Your task to perform on an android device: Go to calendar. Show me events next week Image 0: 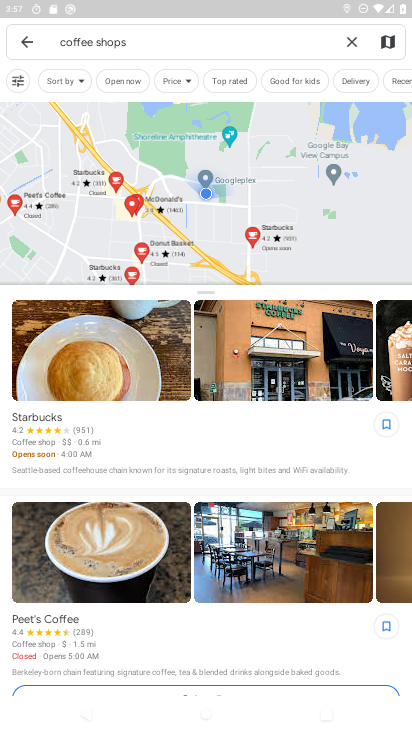
Step 0: press home button
Your task to perform on an android device: Go to calendar. Show me events next week Image 1: 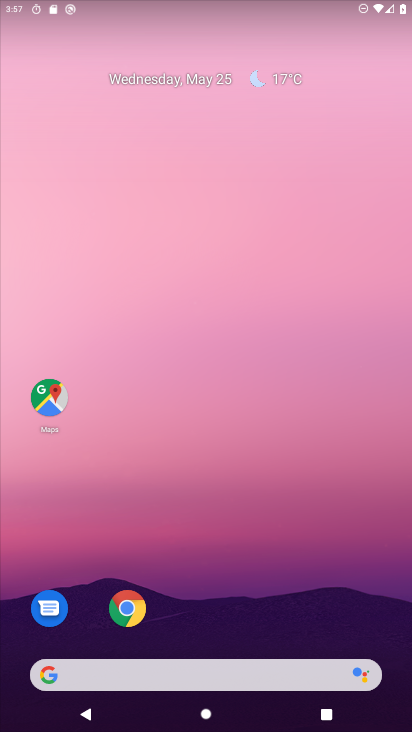
Step 1: drag from (201, 585) to (198, 62)
Your task to perform on an android device: Go to calendar. Show me events next week Image 2: 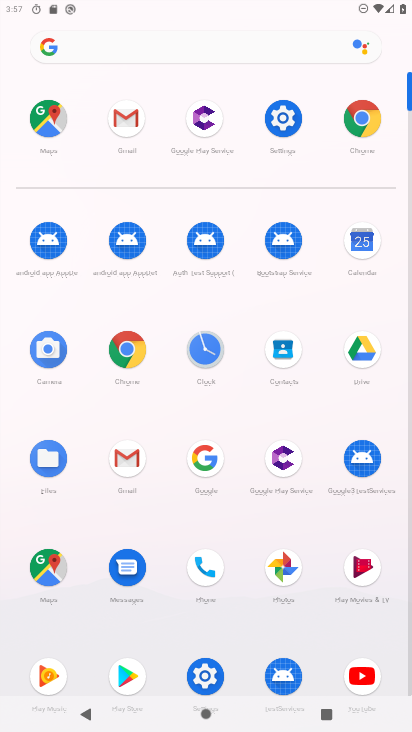
Step 2: click (358, 245)
Your task to perform on an android device: Go to calendar. Show me events next week Image 3: 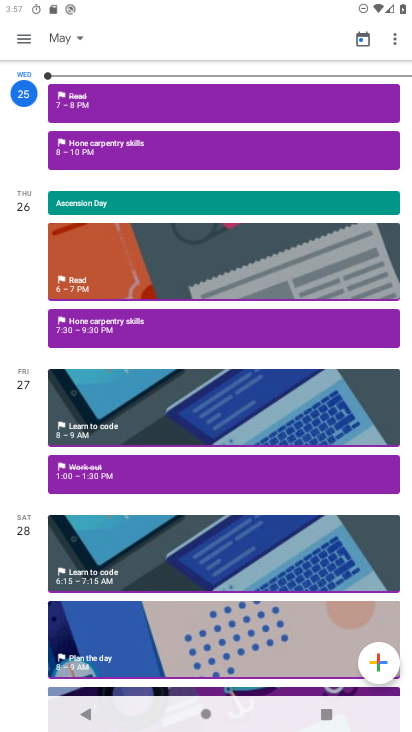
Step 3: click (23, 34)
Your task to perform on an android device: Go to calendar. Show me events next week Image 4: 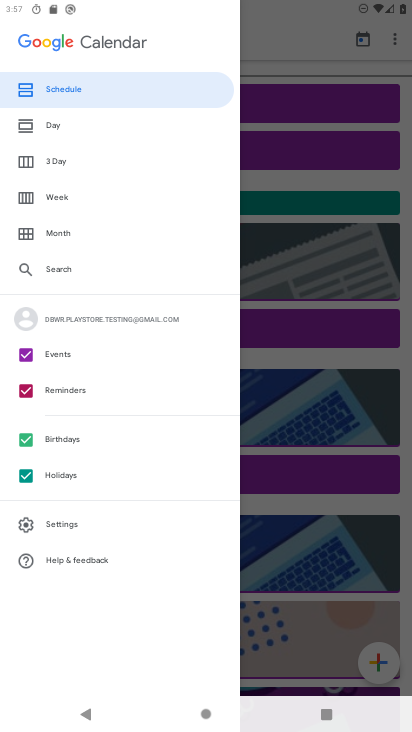
Step 4: click (291, 64)
Your task to perform on an android device: Go to calendar. Show me events next week Image 5: 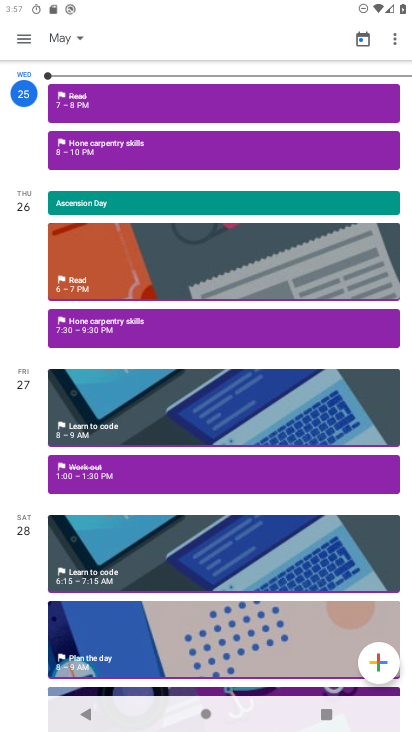
Step 5: click (52, 40)
Your task to perform on an android device: Go to calendar. Show me events next week Image 6: 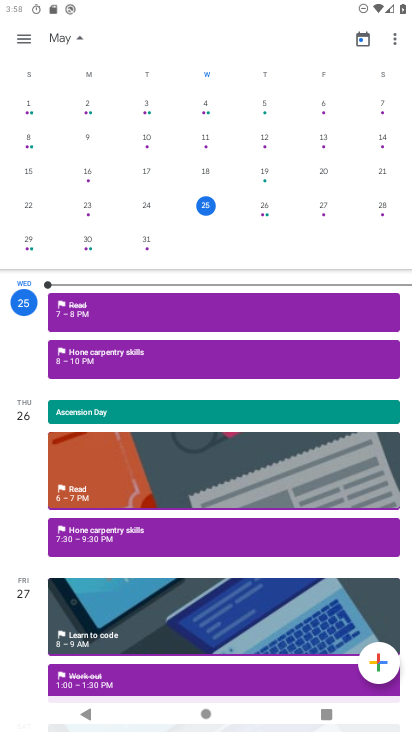
Step 6: click (142, 246)
Your task to perform on an android device: Go to calendar. Show me events next week Image 7: 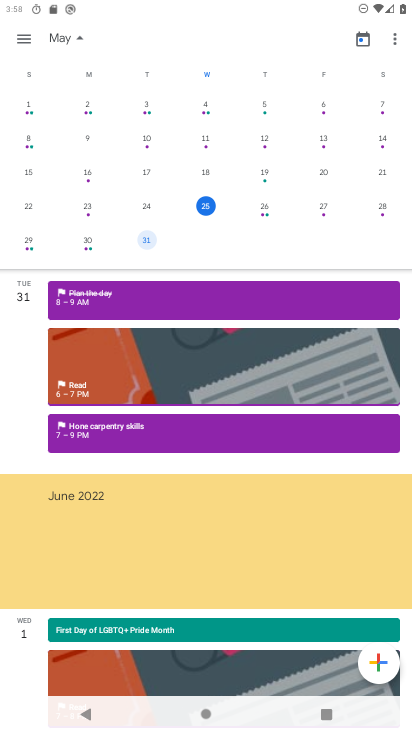
Step 7: click (23, 43)
Your task to perform on an android device: Go to calendar. Show me events next week Image 8: 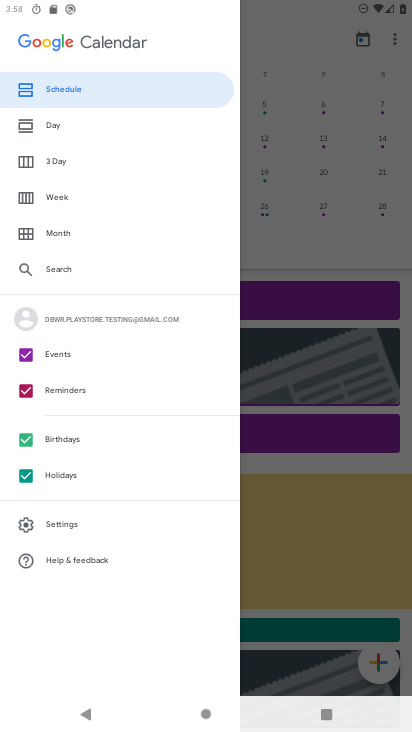
Step 8: click (59, 191)
Your task to perform on an android device: Go to calendar. Show me events next week Image 9: 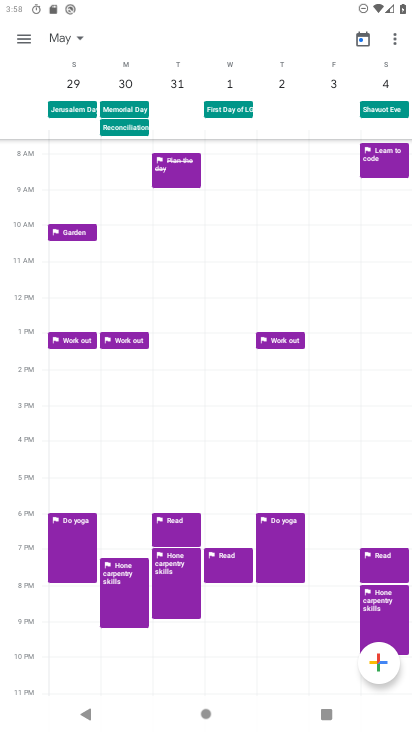
Step 9: task complete